Your task to perform on an android device: open app "Instagram" (install if not already installed) and go to login screen Image 0: 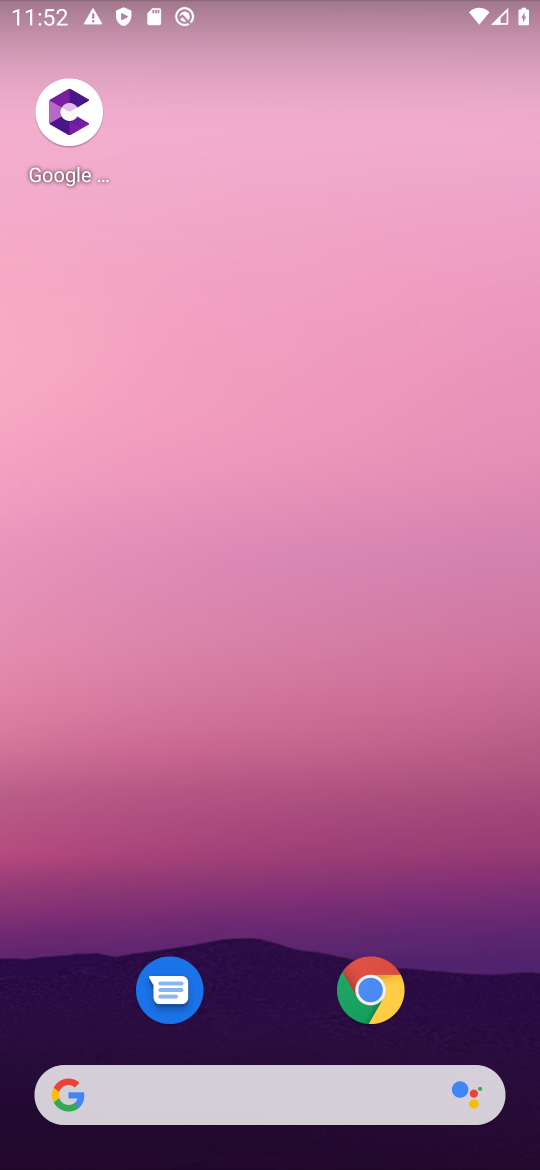
Step 0: drag from (149, 1064) to (273, 507)
Your task to perform on an android device: open app "Instagram" (install if not already installed) and go to login screen Image 1: 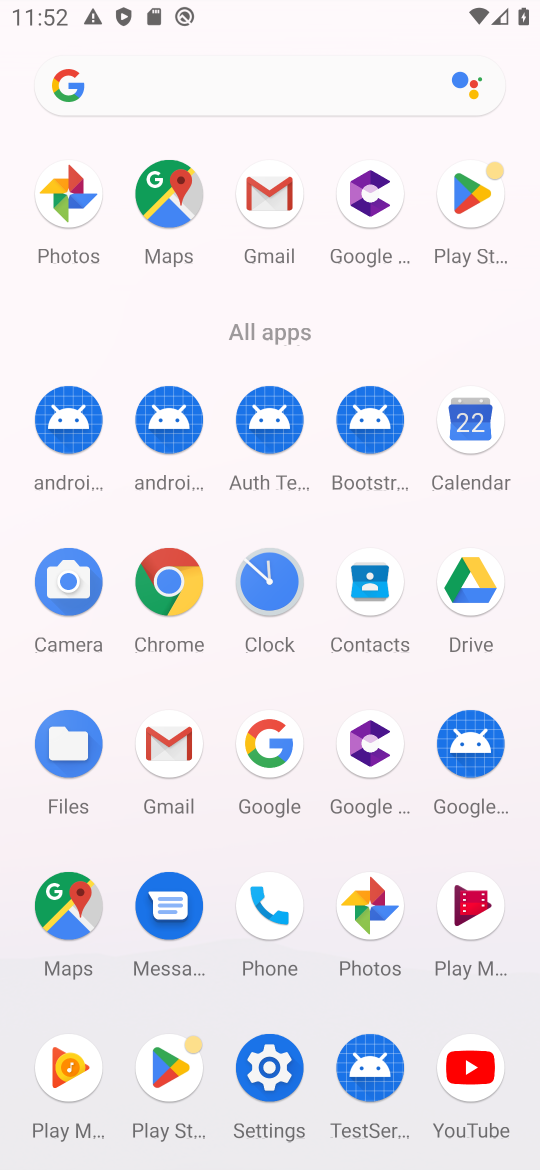
Step 1: click (477, 200)
Your task to perform on an android device: open app "Instagram" (install if not already installed) and go to login screen Image 2: 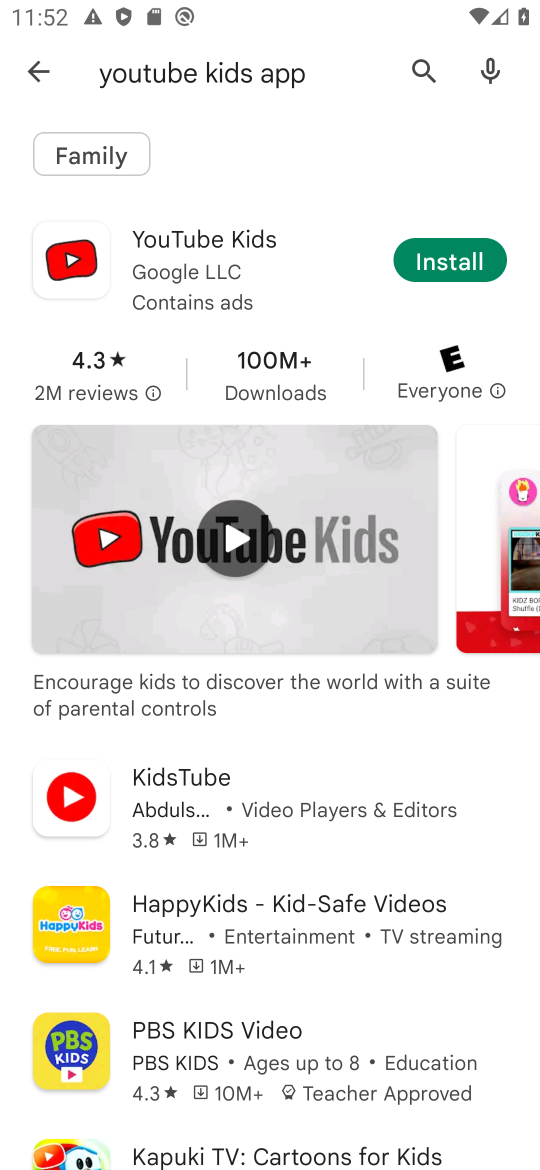
Step 2: click (43, 75)
Your task to perform on an android device: open app "Instagram" (install if not already installed) and go to login screen Image 3: 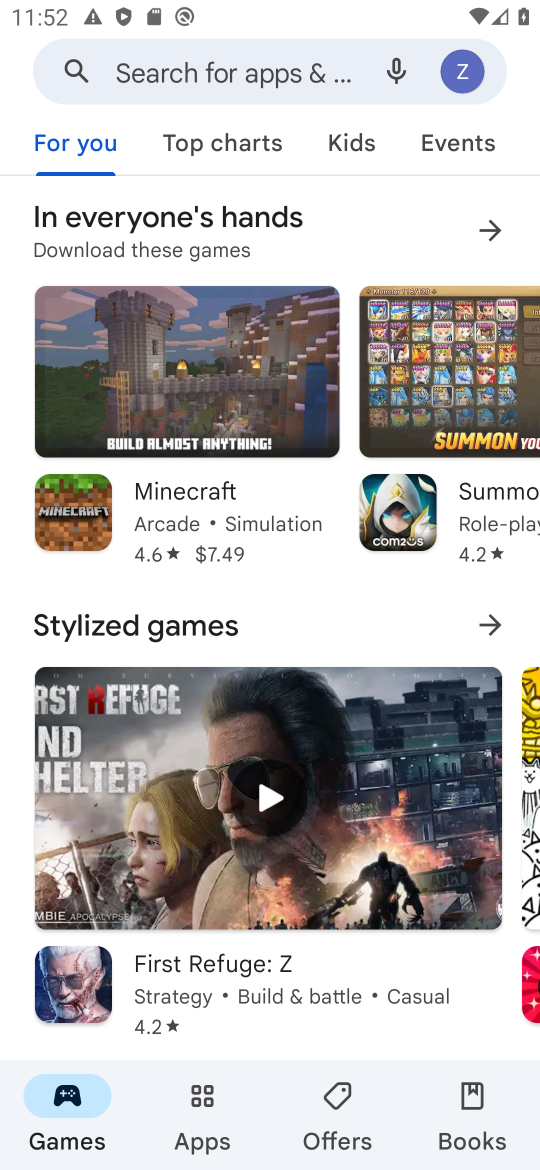
Step 3: click (232, 55)
Your task to perform on an android device: open app "Instagram" (install if not already installed) and go to login screen Image 4: 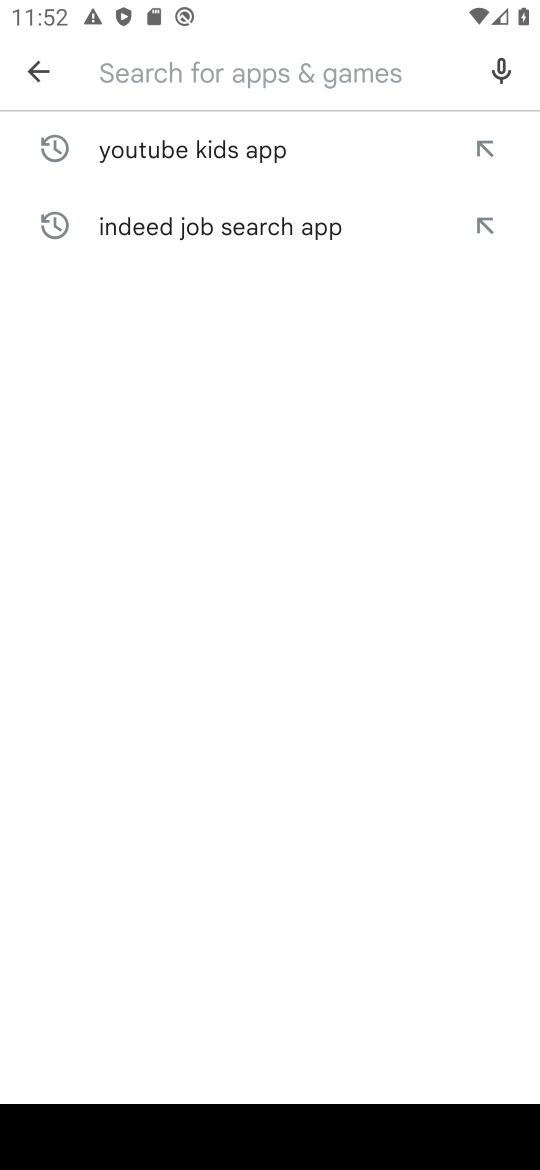
Step 4: type "instagram "
Your task to perform on an android device: open app "Instagram" (install if not already installed) and go to login screen Image 5: 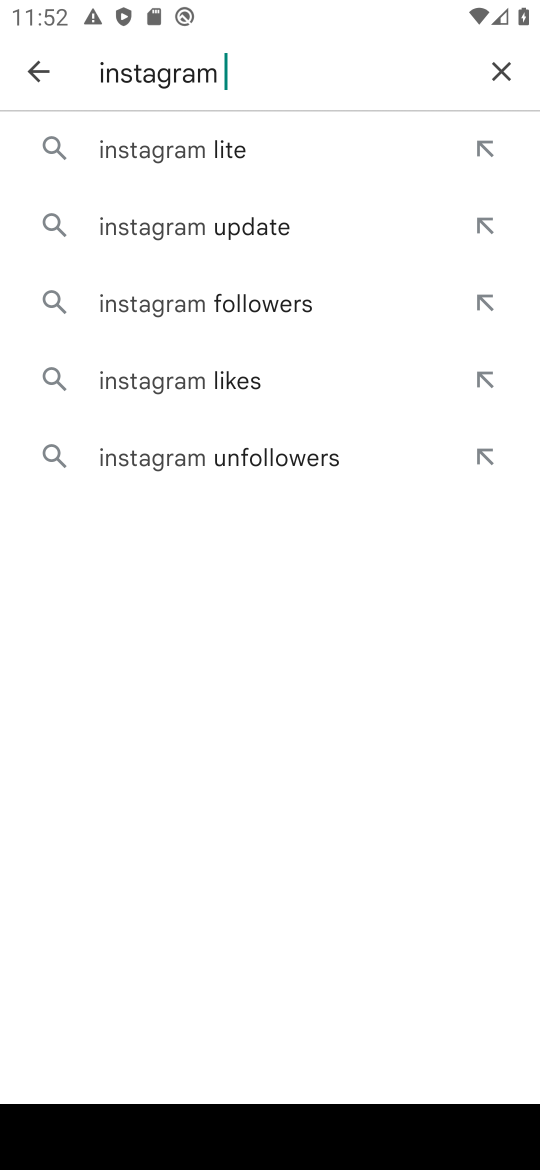
Step 5: click (199, 136)
Your task to perform on an android device: open app "Instagram" (install if not already installed) and go to login screen Image 6: 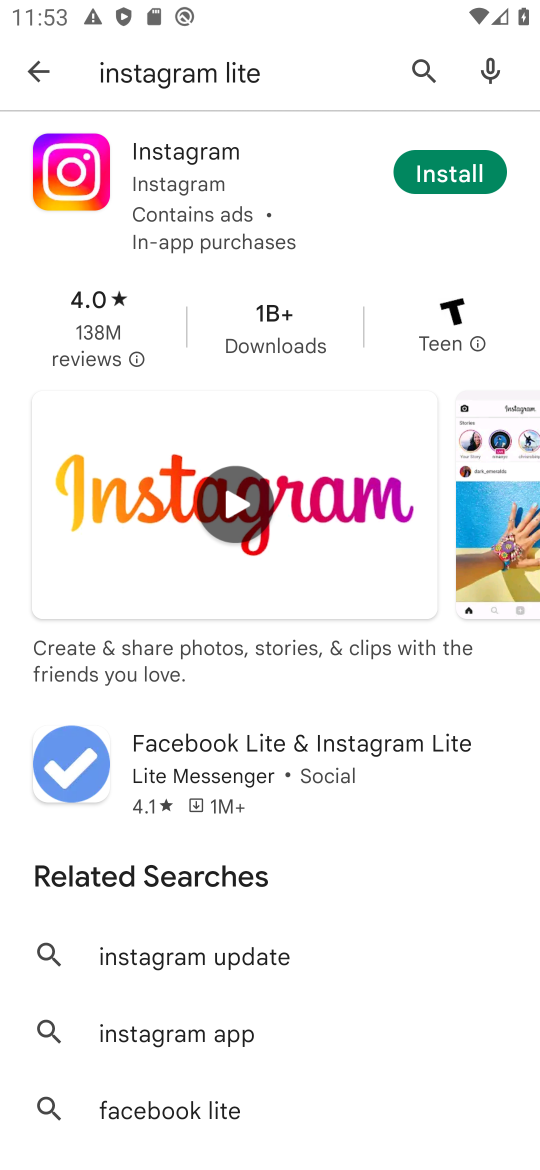
Step 6: click (440, 174)
Your task to perform on an android device: open app "Instagram" (install if not already installed) and go to login screen Image 7: 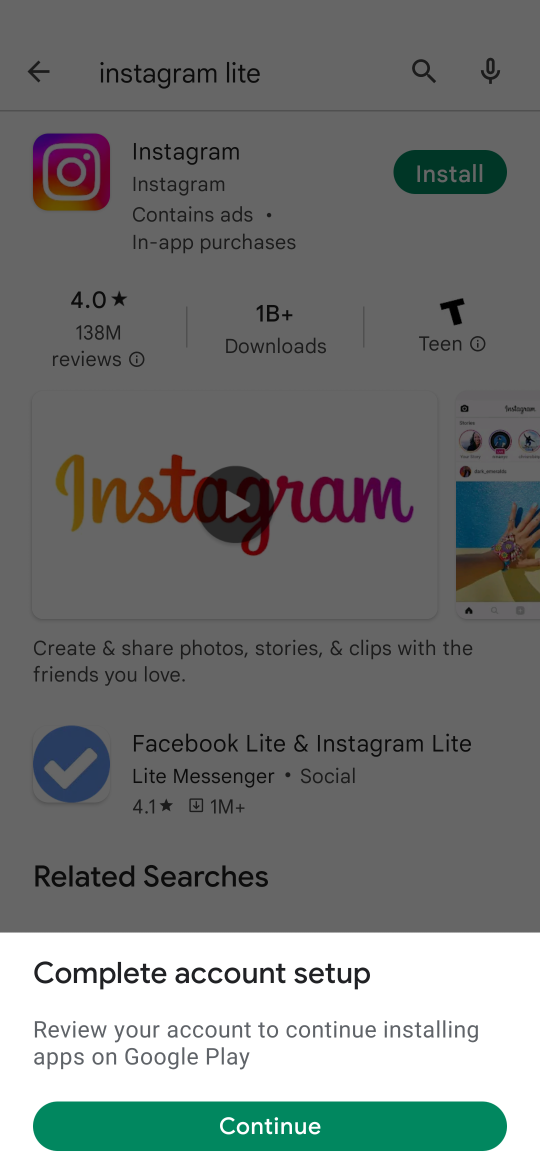
Step 7: click (320, 1120)
Your task to perform on an android device: open app "Instagram" (install if not already installed) and go to login screen Image 8: 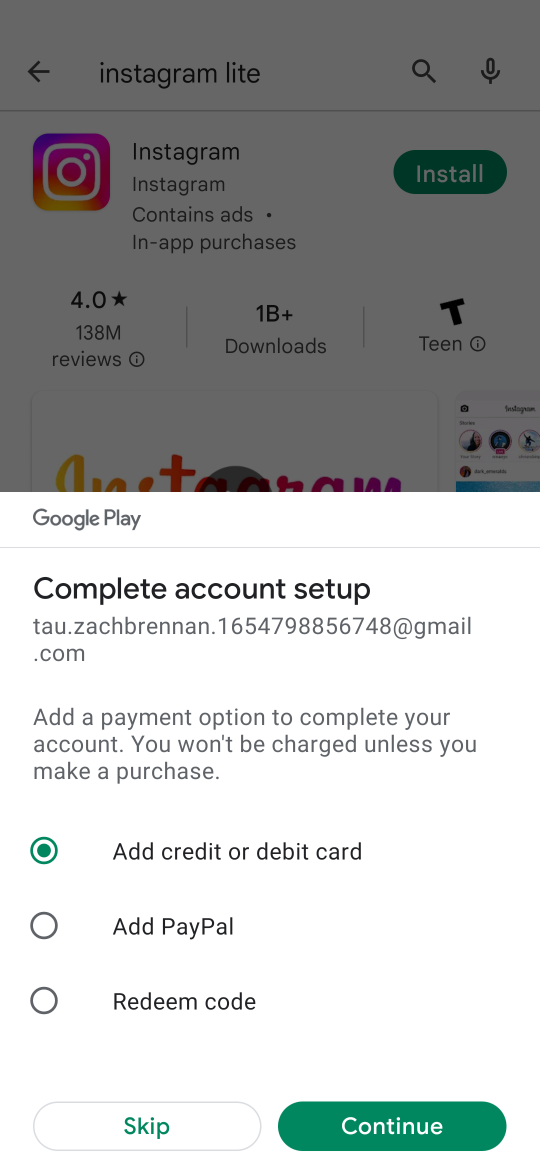
Step 8: task complete